Your task to perform on an android device: toggle improve location accuracy Image 0: 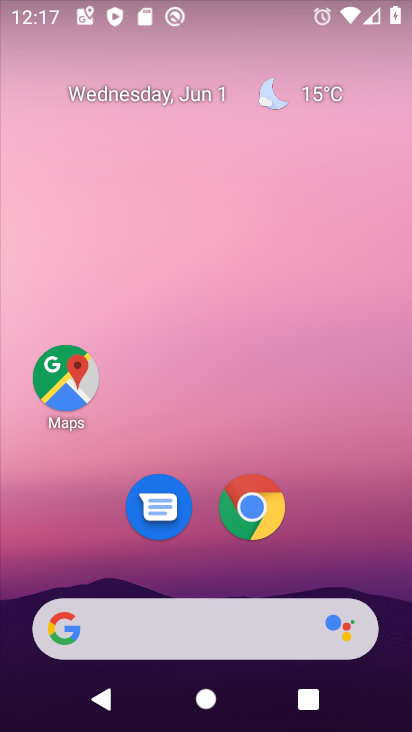
Step 0: drag from (338, 551) to (267, 198)
Your task to perform on an android device: toggle improve location accuracy Image 1: 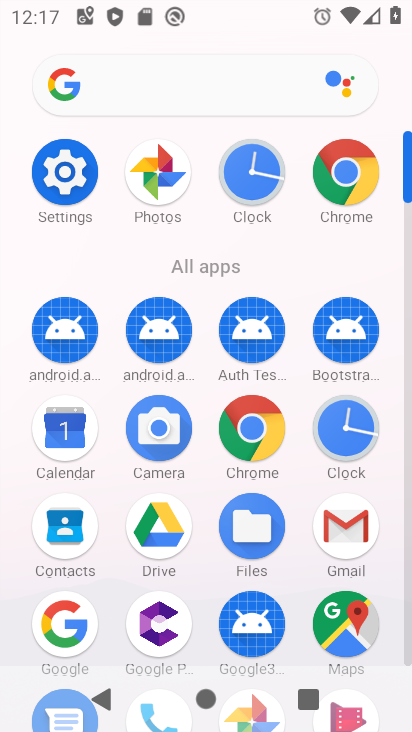
Step 1: click (67, 170)
Your task to perform on an android device: toggle improve location accuracy Image 2: 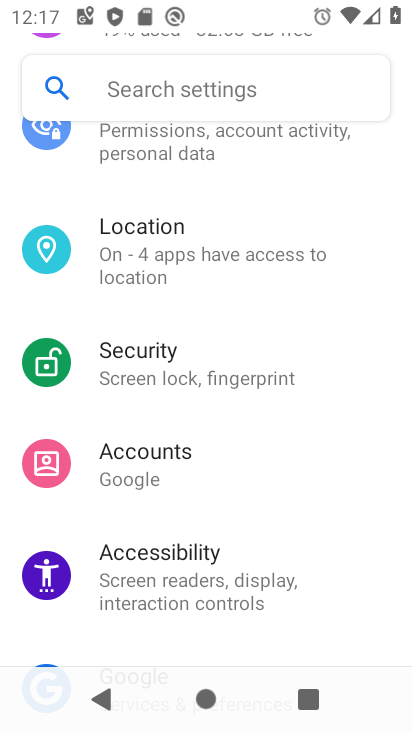
Step 2: click (158, 236)
Your task to perform on an android device: toggle improve location accuracy Image 3: 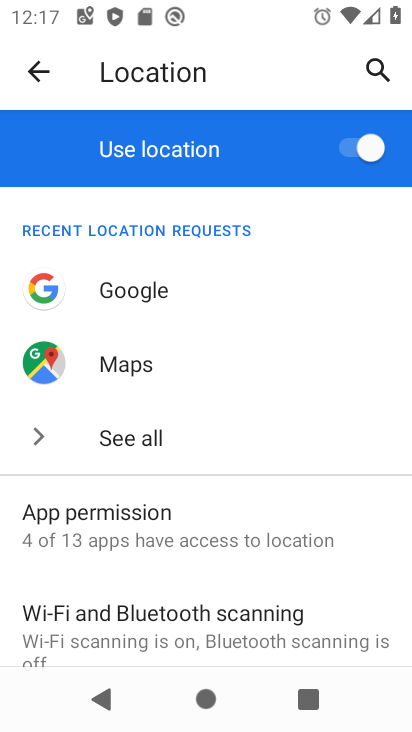
Step 3: drag from (168, 569) to (227, 443)
Your task to perform on an android device: toggle improve location accuracy Image 4: 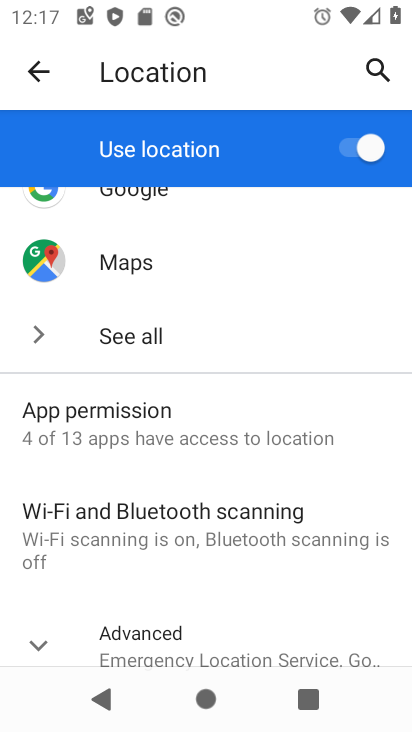
Step 4: drag from (198, 613) to (259, 484)
Your task to perform on an android device: toggle improve location accuracy Image 5: 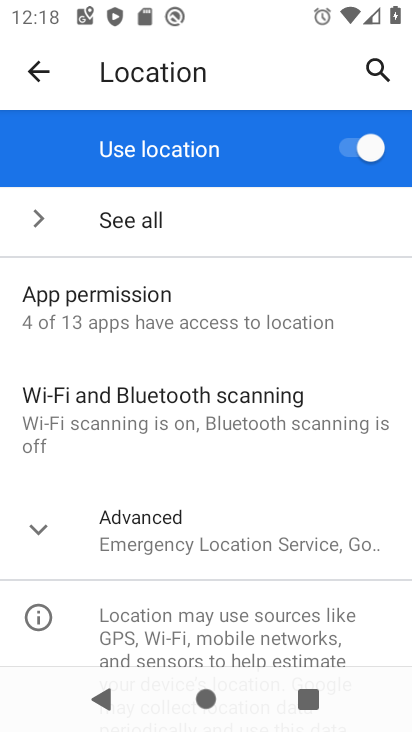
Step 5: click (239, 540)
Your task to perform on an android device: toggle improve location accuracy Image 6: 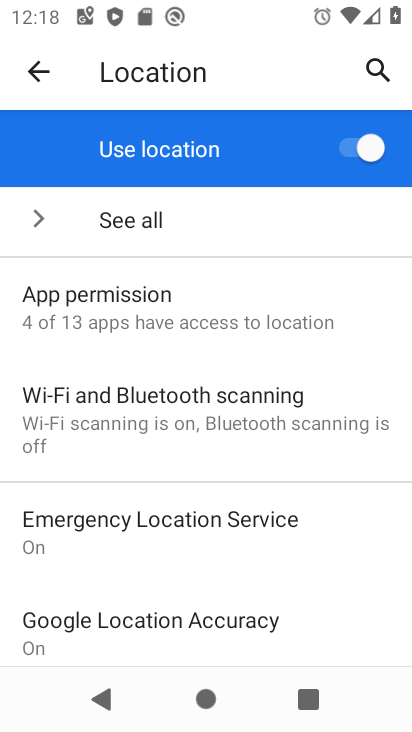
Step 6: click (208, 611)
Your task to perform on an android device: toggle improve location accuracy Image 7: 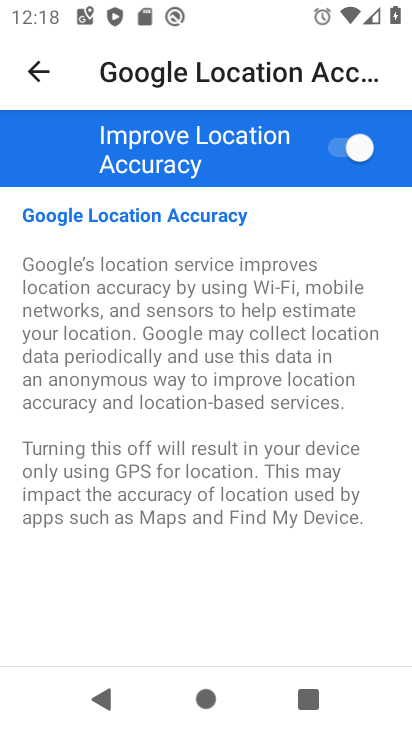
Step 7: click (348, 154)
Your task to perform on an android device: toggle improve location accuracy Image 8: 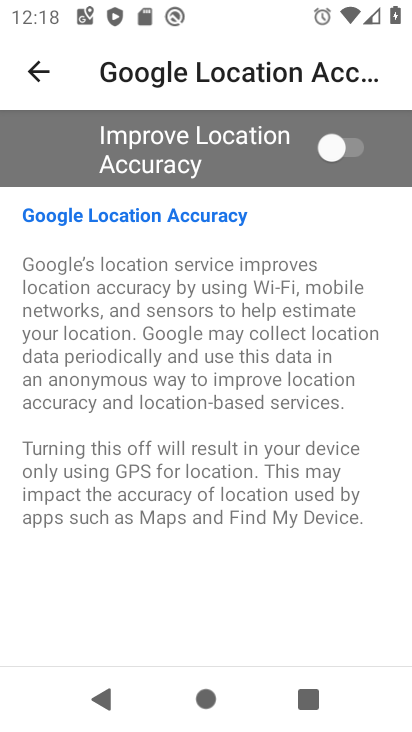
Step 8: task complete